Your task to perform on an android device: open app "Move to iOS" Image 0: 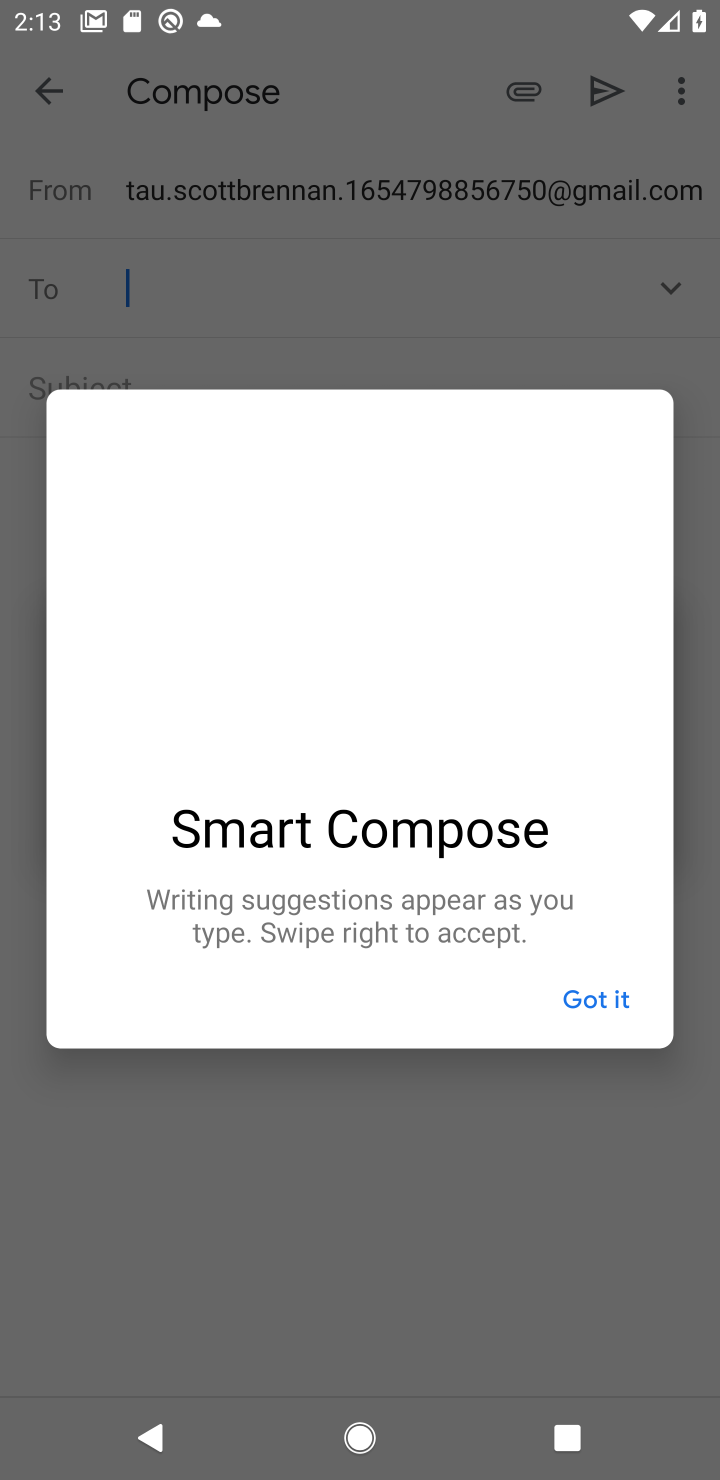
Step 0: press home button
Your task to perform on an android device: open app "Move to iOS" Image 1: 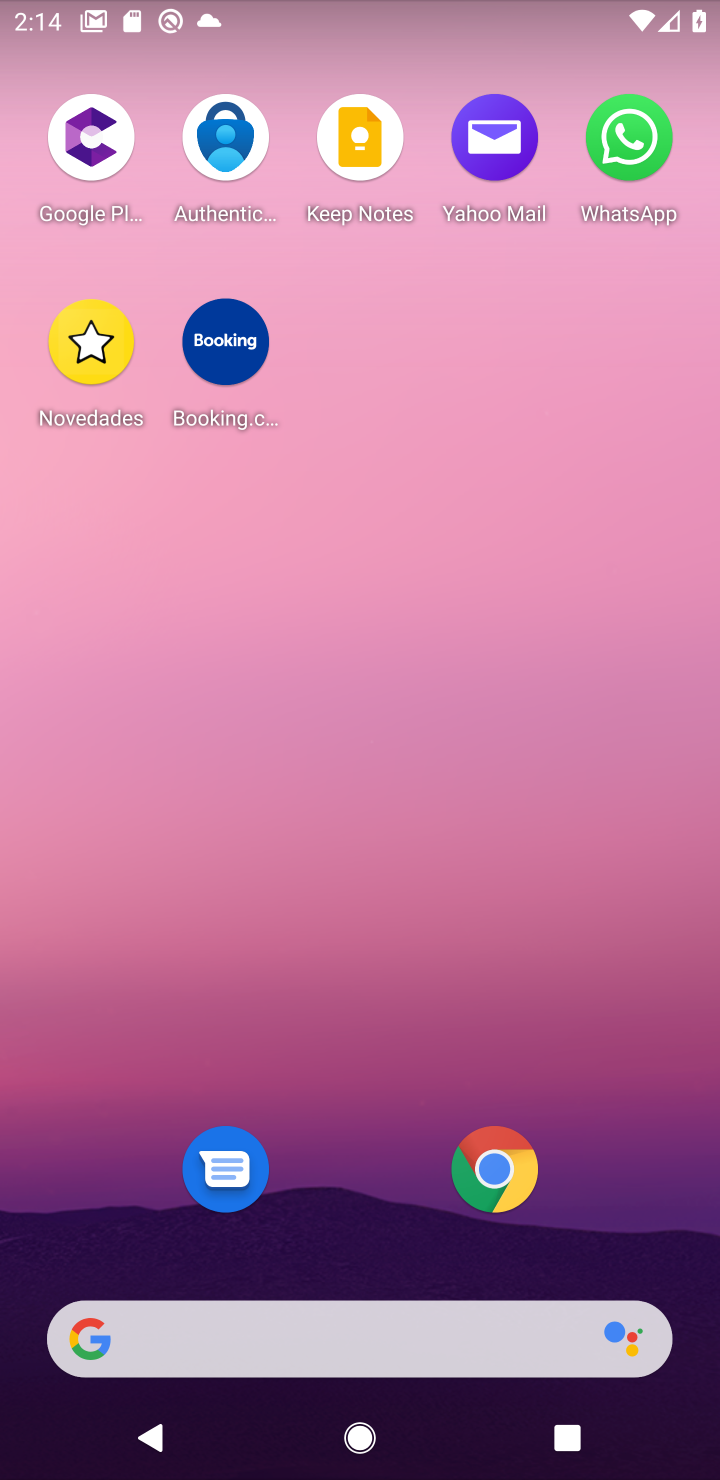
Step 1: drag from (316, 1230) to (292, 225)
Your task to perform on an android device: open app "Move to iOS" Image 2: 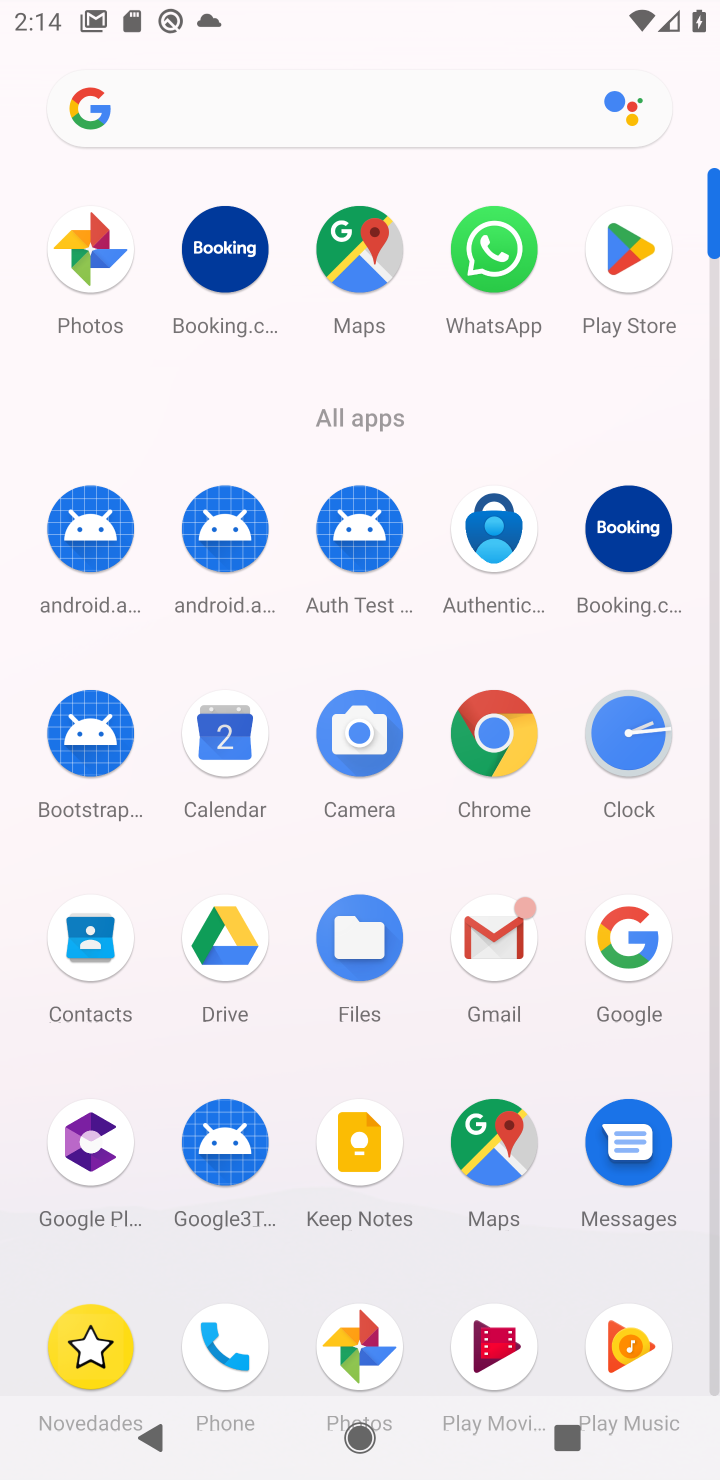
Step 2: click (633, 242)
Your task to perform on an android device: open app "Move to iOS" Image 3: 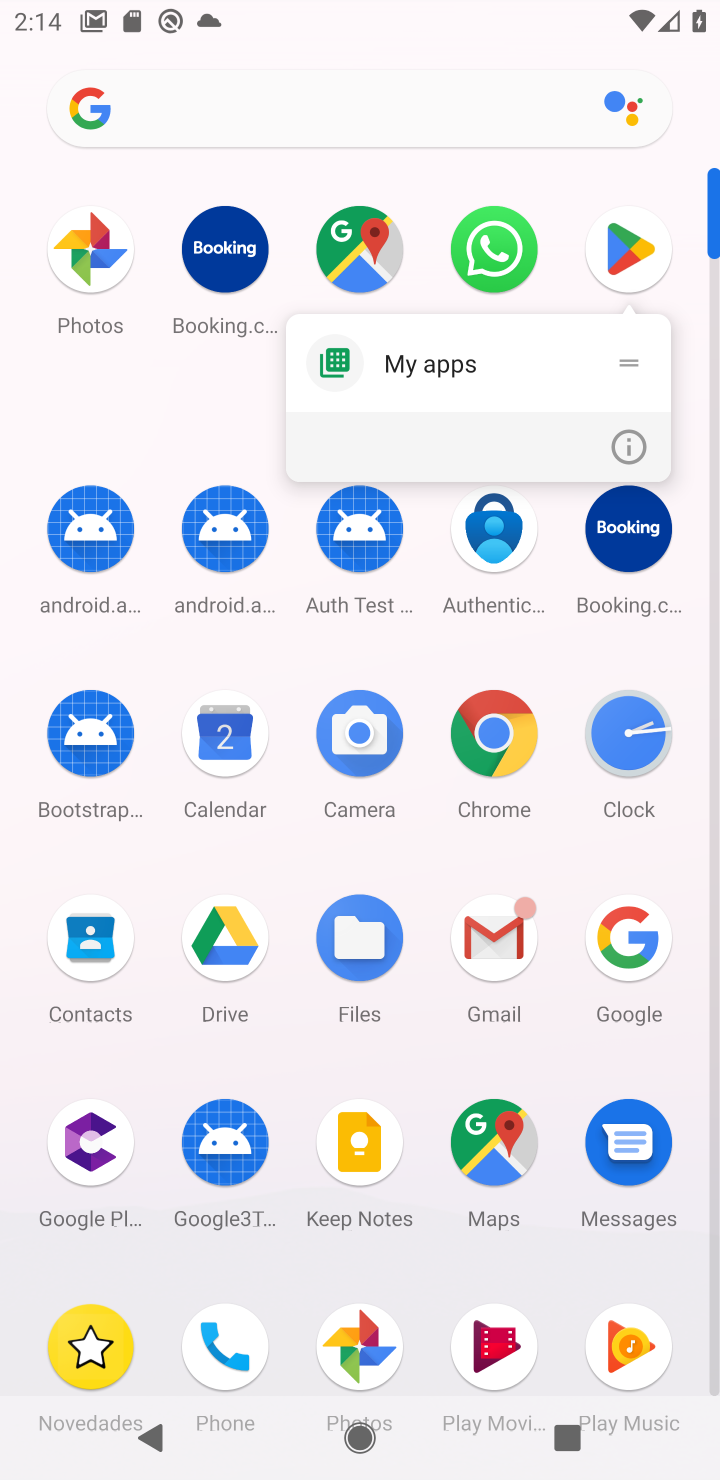
Step 3: click (618, 235)
Your task to perform on an android device: open app "Move to iOS" Image 4: 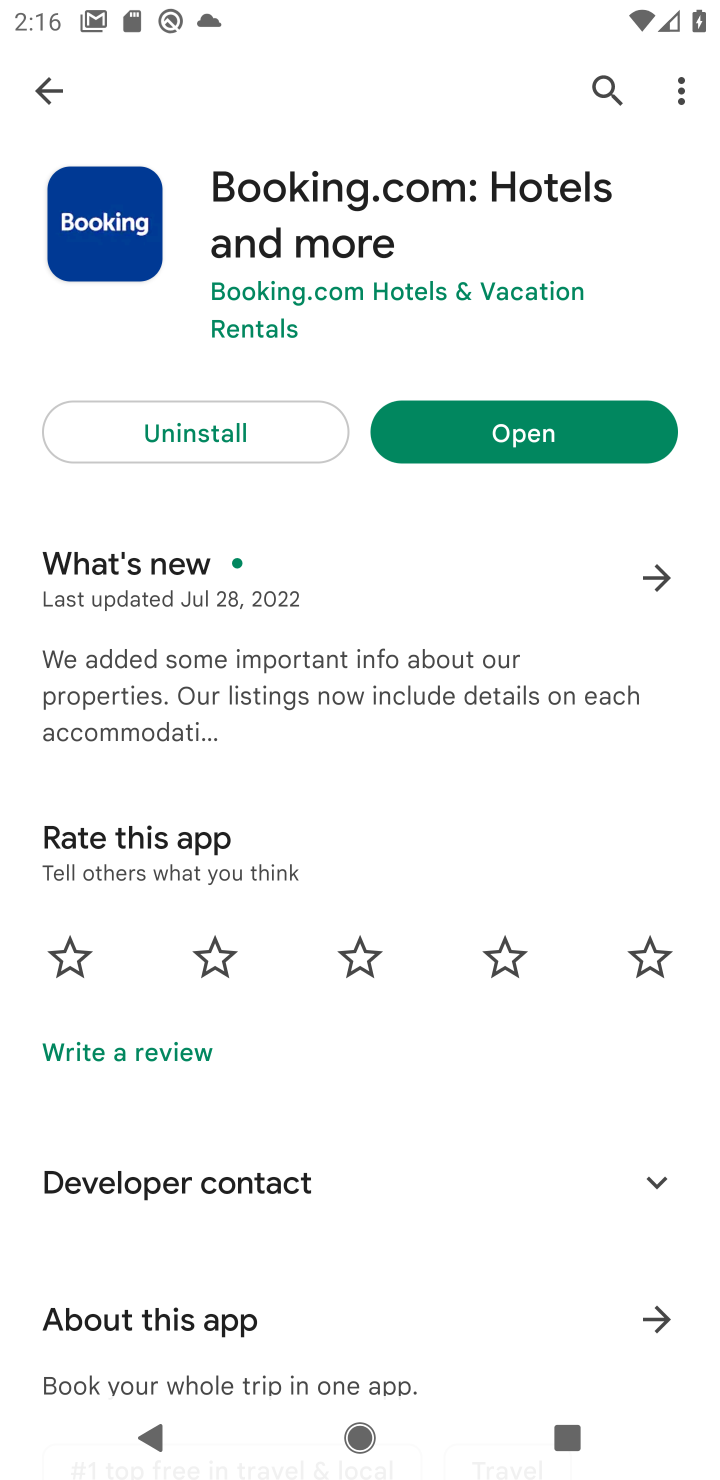
Step 4: click (593, 88)
Your task to perform on an android device: open app "Move to iOS" Image 5: 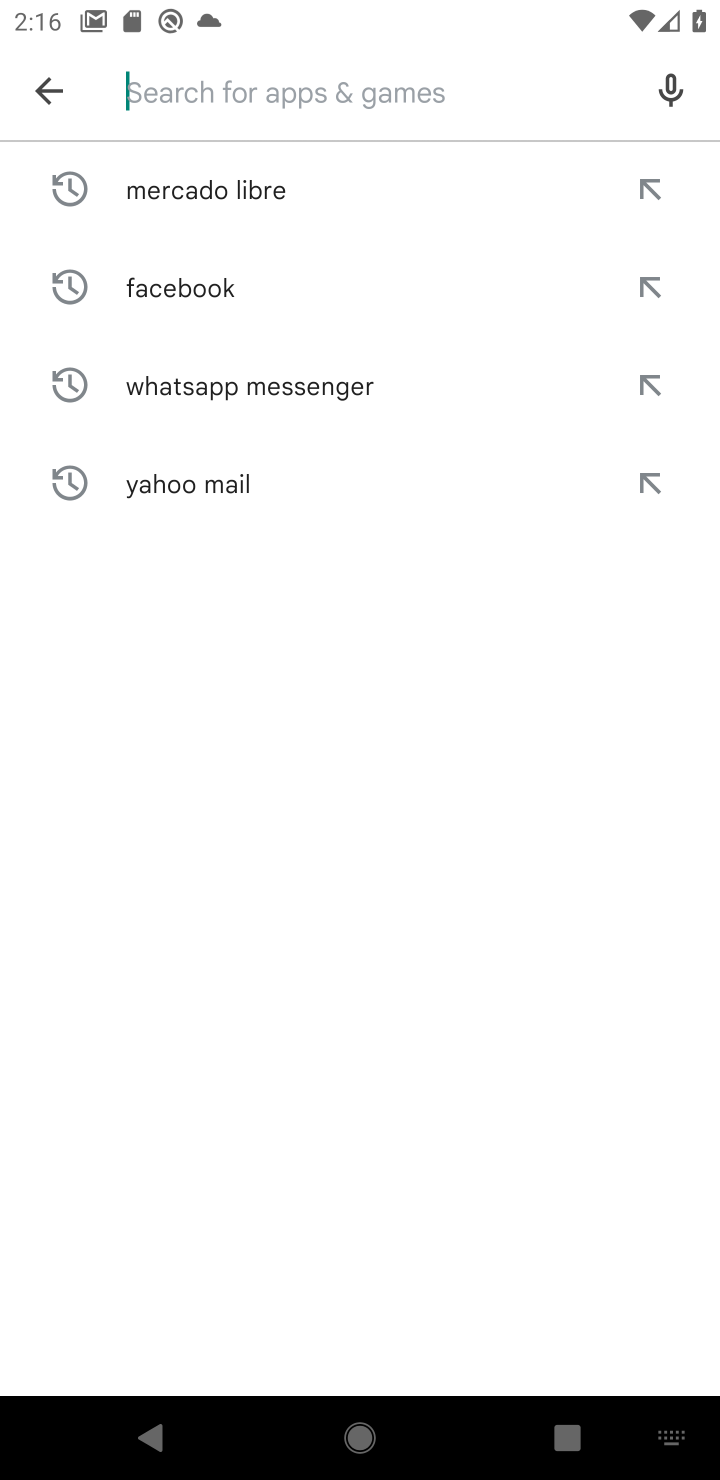
Step 5: type "Move to iOS"
Your task to perform on an android device: open app "Move to iOS" Image 6: 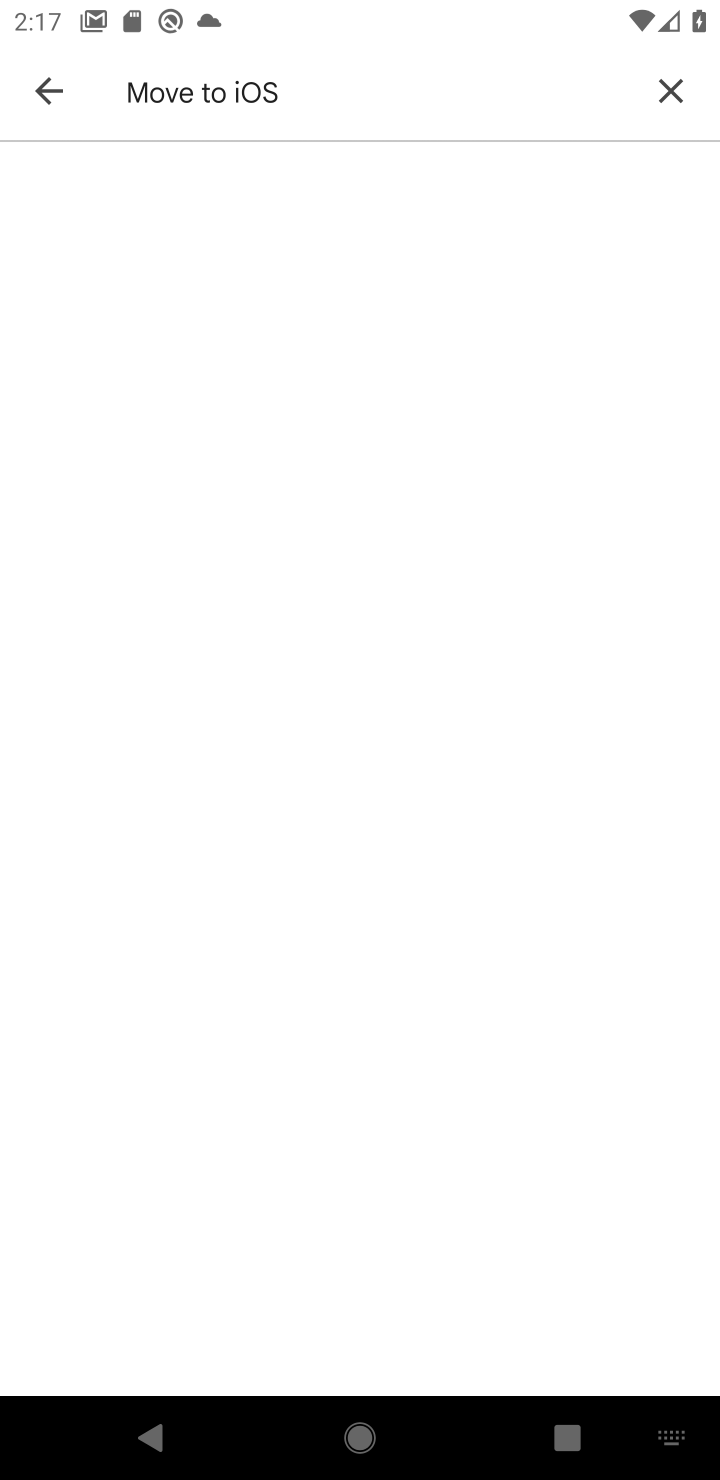
Step 6: task complete